Your task to perform on an android device: Open accessibility settings Image 0: 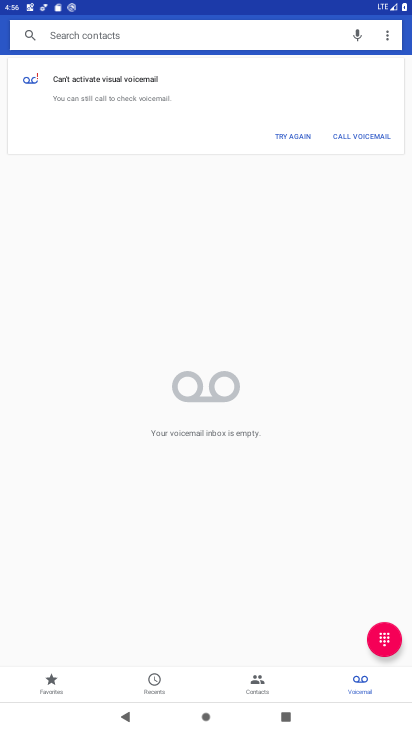
Step 0: press home button
Your task to perform on an android device: Open accessibility settings Image 1: 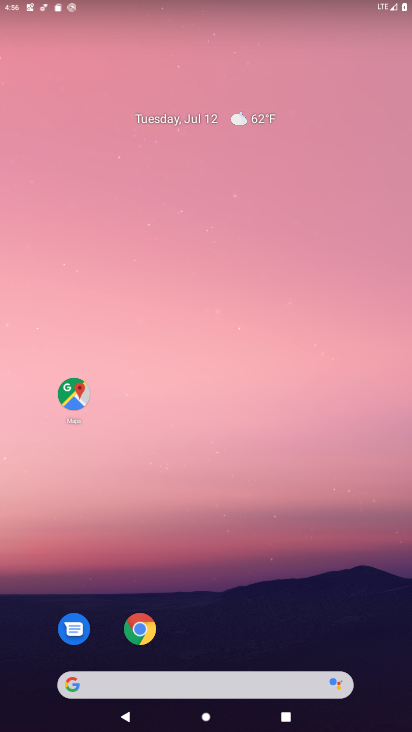
Step 1: drag from (330, 464) to (295, 96)
Your task to perform on an android device: Open accessibility settings Image 2: 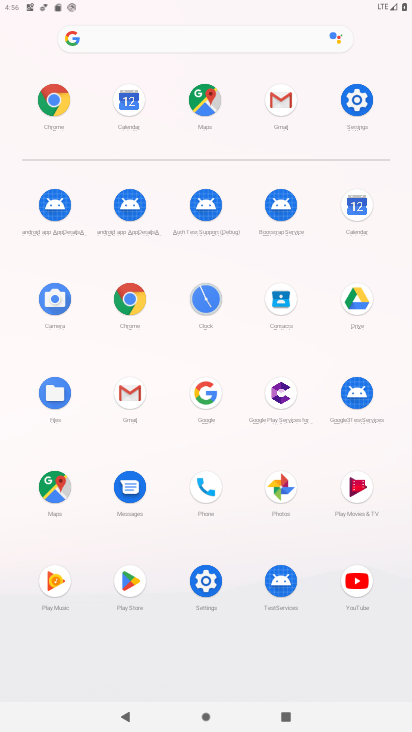
Step 2: click (378, 98)
Your task to perform on an android device: Open accessibility settings Image 3: 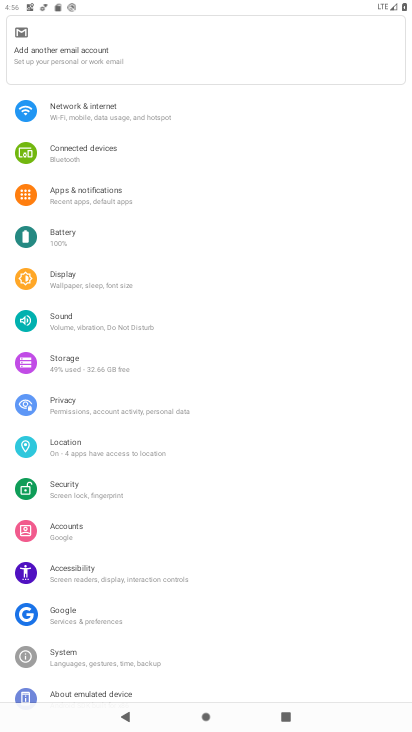
Step 3: click (102, 578)
Your task to perform on an android device: Open accessibility settings Image 4: 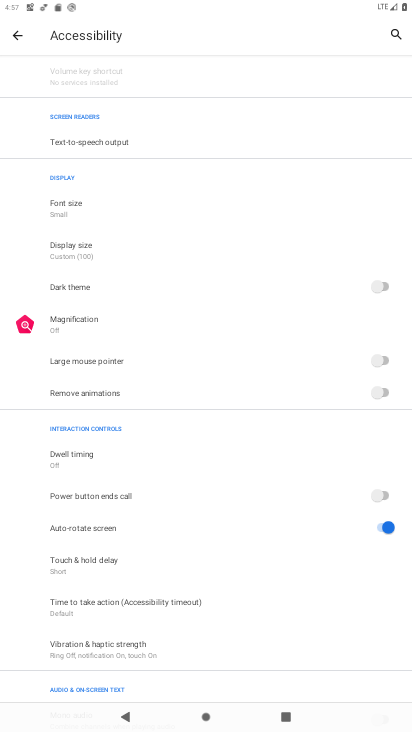
Step 4: task complete